Your task to perform on an android device: Open wifi settings Image 0: 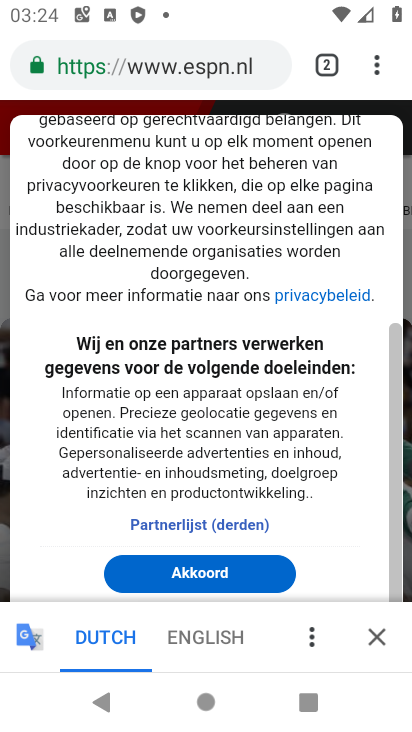
Step 0: press home button
Your task to perform on an android device: Open wifi settings Image 1: 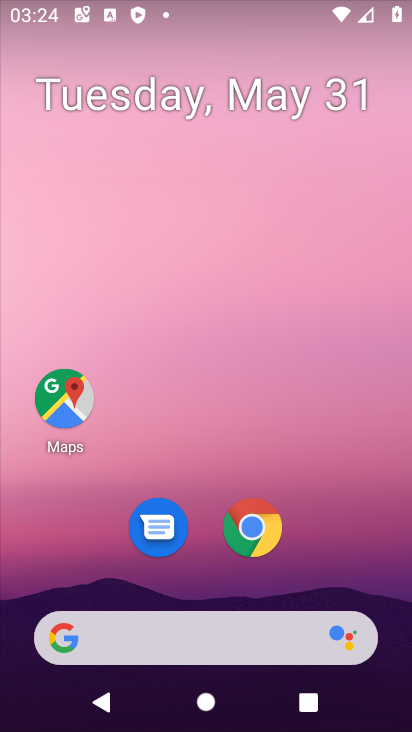
Step 1: drag from (401, 643) to (328, 226)
Your task to perform on an android device: Open wifi settings Image 2: 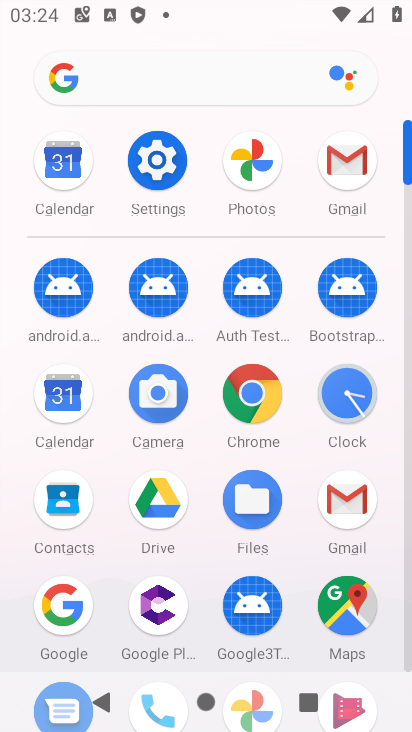
Step 2: click (408, 654)
Your task to perform on an android device: Open wifi settings Image 3: 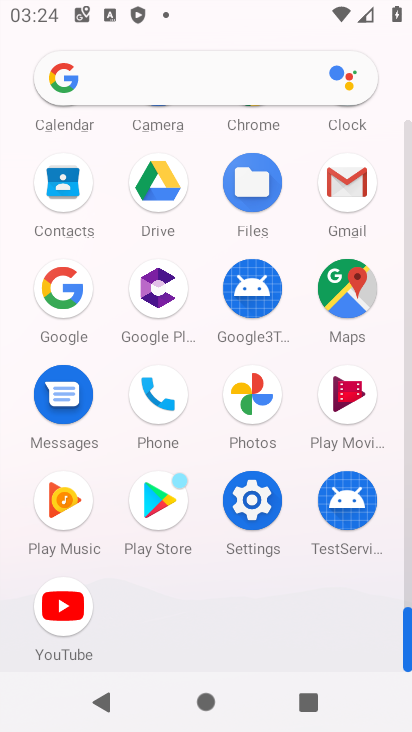
Step 3: click (254, 499)
Your task to perform on an android device: Open wifi settings Image 4: 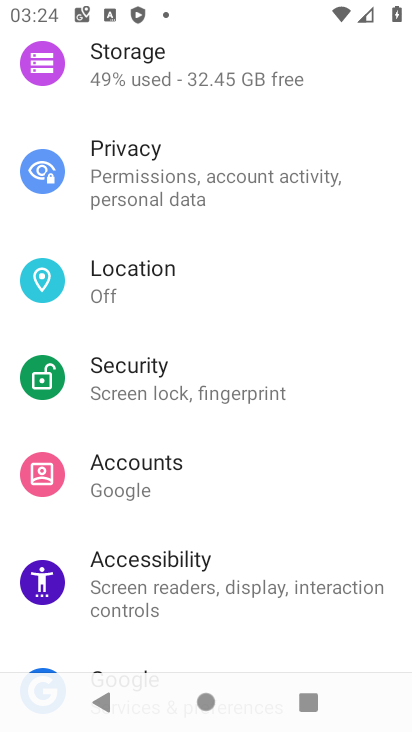
Step 4: drag from (357, 139) to (331, 427)
Your task to perform on an android device: Open wifi settings Image 5: 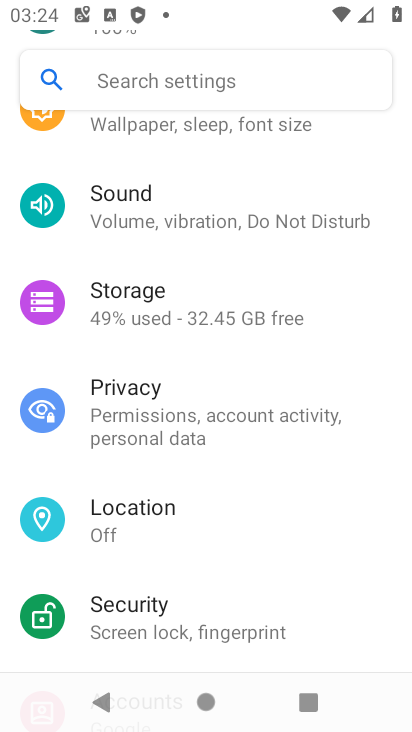
Step 5: drag from (356, 252) to (323, 527)
Your task to perform on an android device: Open wifi settings Image 6: 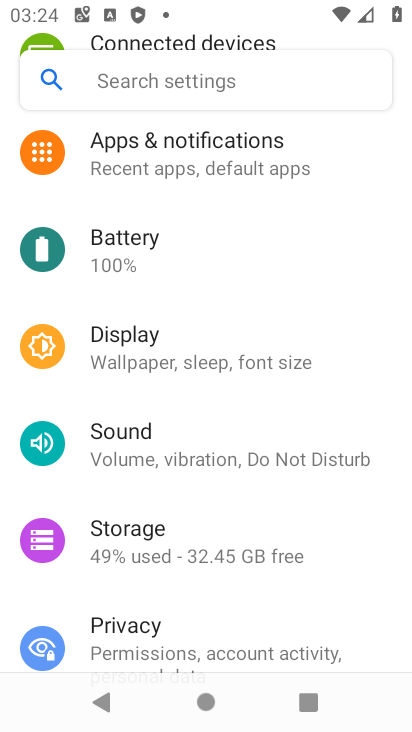
Step 6: drag from (345, 245) to (330, 585)
Your task to perform on an android device: Open wifi settings Image 7: 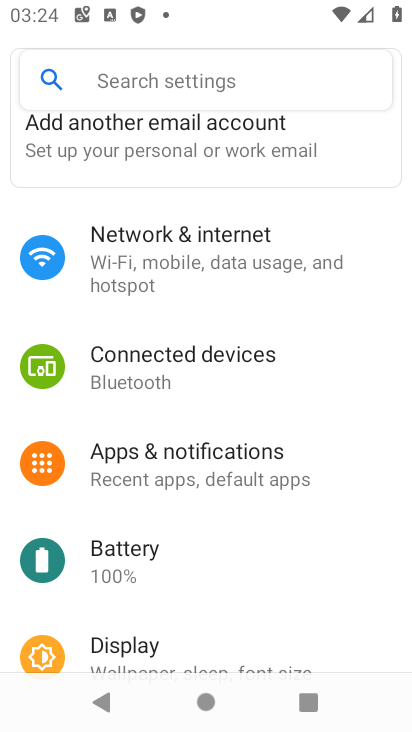
Step 7: click (126, 243)
Your task to perform on an android device: Open wifi settings Image 8: 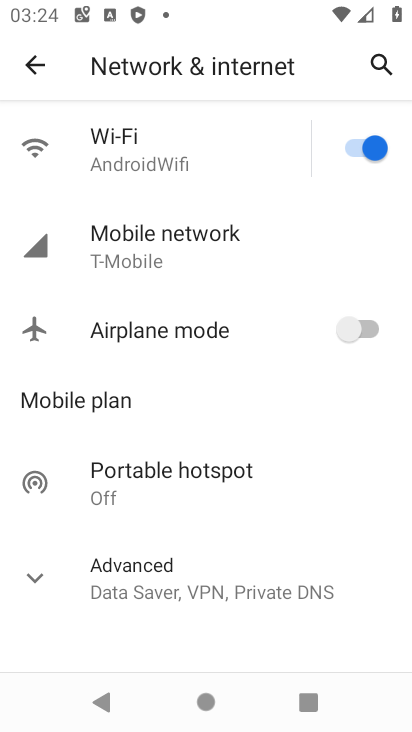
Step 8: click (104, 146)
Your task to perform on an android device: Open wifi settings Image 9: 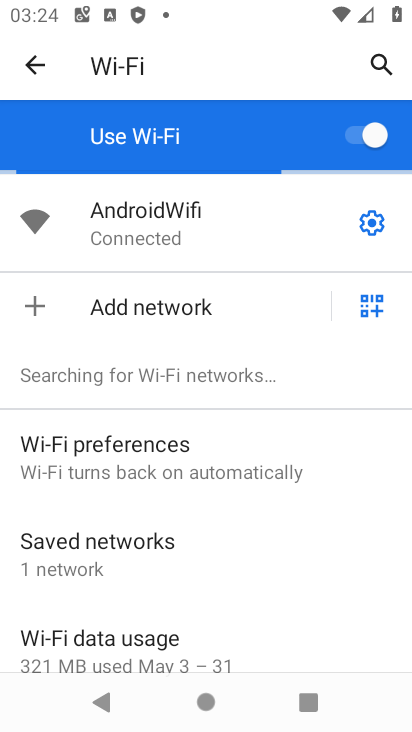
Step 9: drag from (254, 604) to (275, 217)
Your task to perform on an android device: Open wifi settings Image 10: 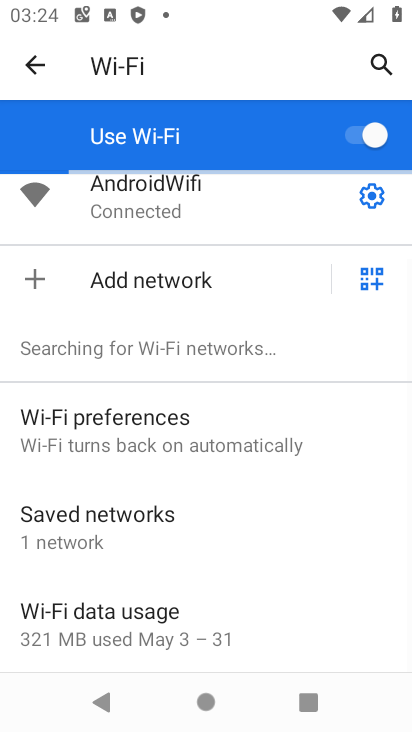
Step 10: drag from (256, 581) to (249, 275)
Your task to perform on an android device: Open wifi settings Image 11: 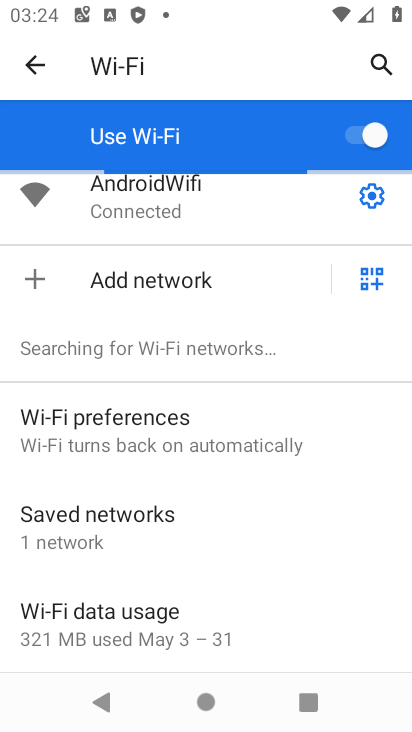
Step 11: click (373, 194)
Your task to perform on an android device: Open wifi settings Image 12: 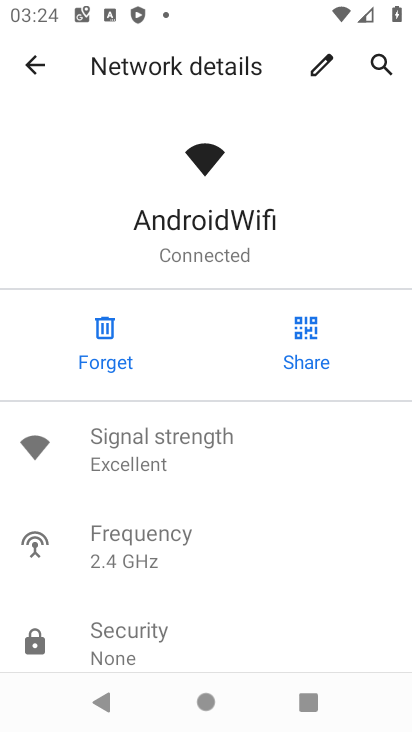
Step 12: drag from (238, 627) to (227, 306)
Your task to perform on an android device: Open wifi settings Image 13: 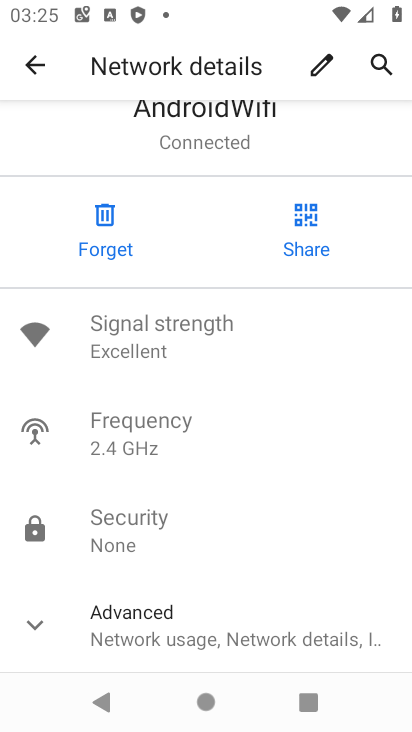
Step 13: click (35, 626)
Your task to perform on an android device: Open wifi settings Image 14: 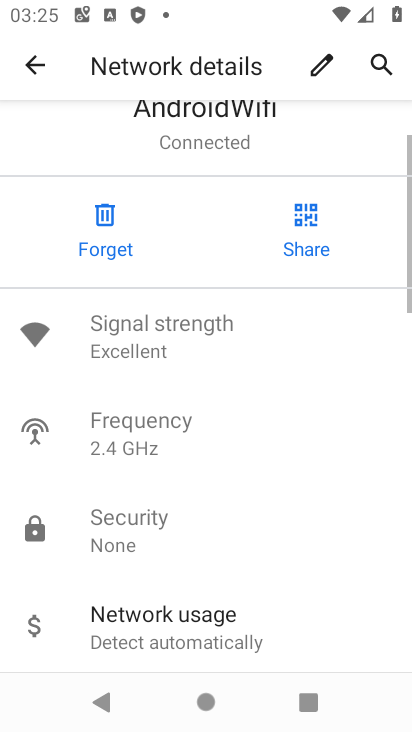
Step 14: task complete